Your task to perform on an android device: delete a single message in the gmail app Image 0: 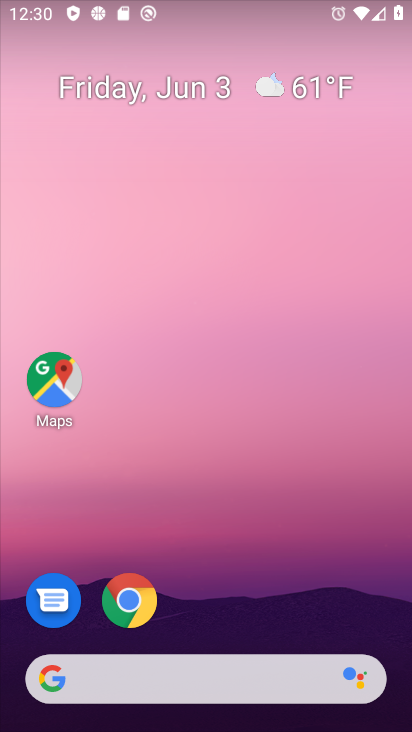
Step 0: drag from (286, 491) to (286, 146)
Your task to perform on an android device: delete a single message in the gmail app Image 1: 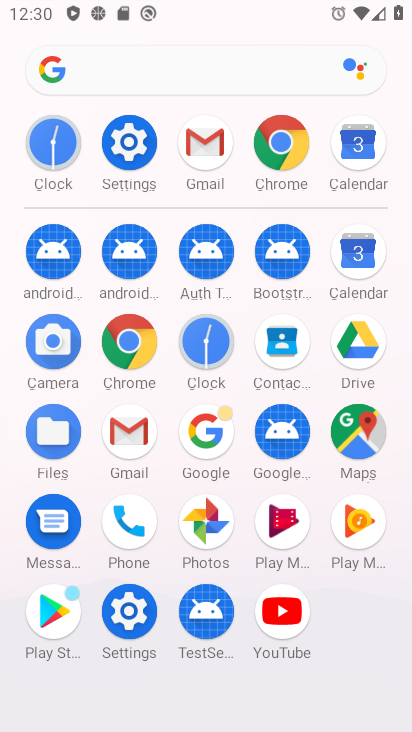
Step 1: click (199, 132)
Your task to perform on an android device: delete a single message in the gmail app Image 2: 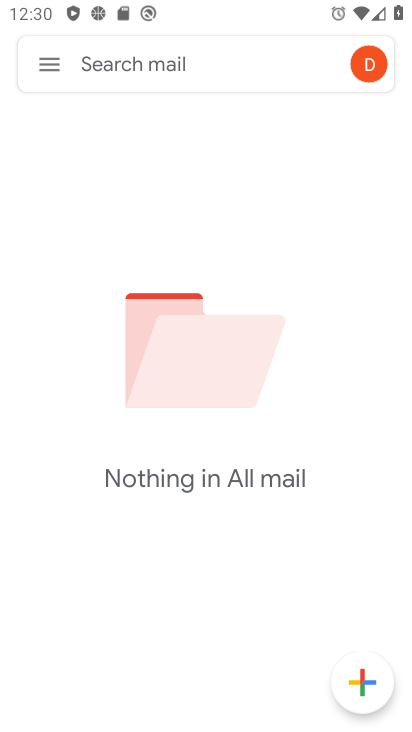
Step 2: click (52, 64)
Your task to perform on an android device: delete a single message in the gmail app Image 3: 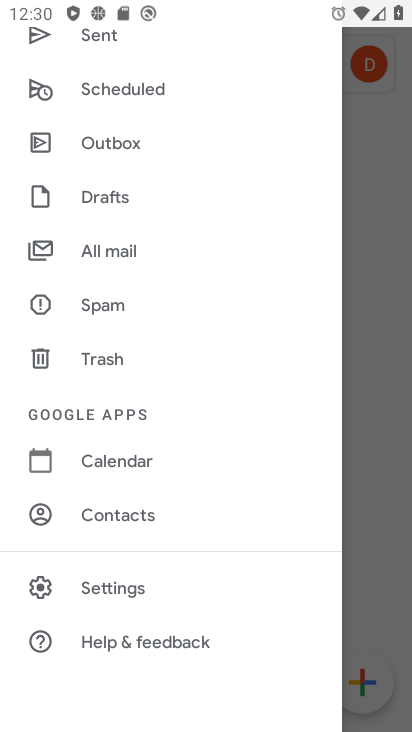
Step 3: drag from (172, 162) to (199, 277)
Your task to perform on an android device: delete a single message in the gmail app Image 4: 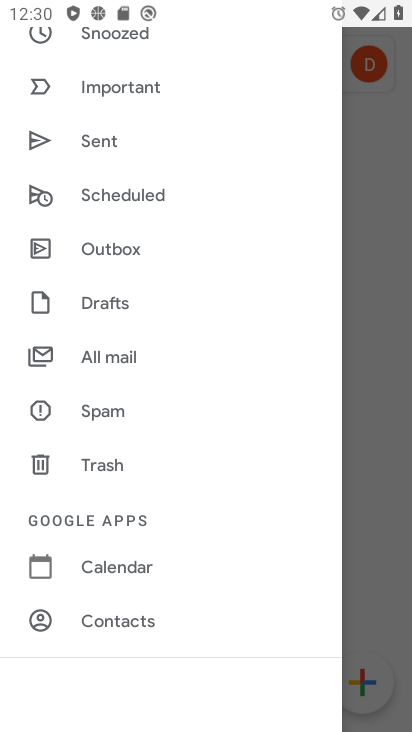
Step 4: click (107, 342)
Your task to perform on an android device: delete a single message in the gmail app Image 5: 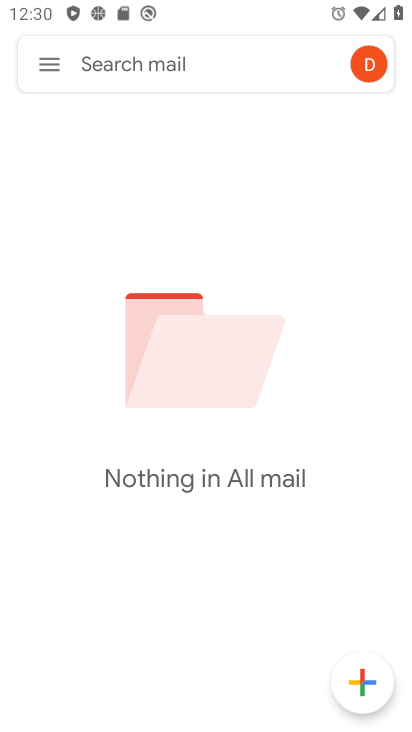
Step 5: task complete